Your task to perform on an android device: show emergency info Image 0: 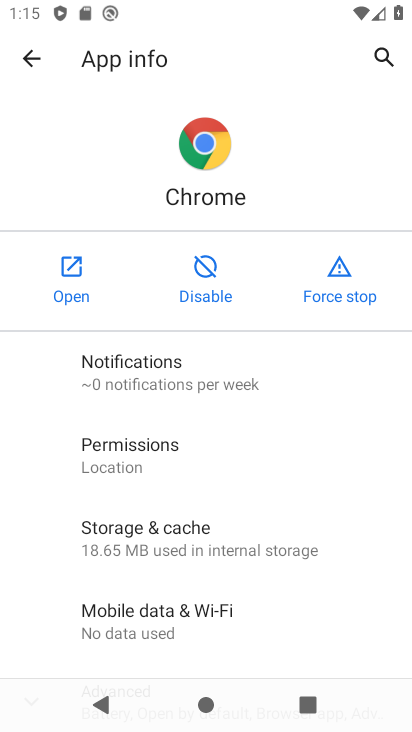
Step 0: press home button
Your task to perform on an android device: show emergency info Image 1: 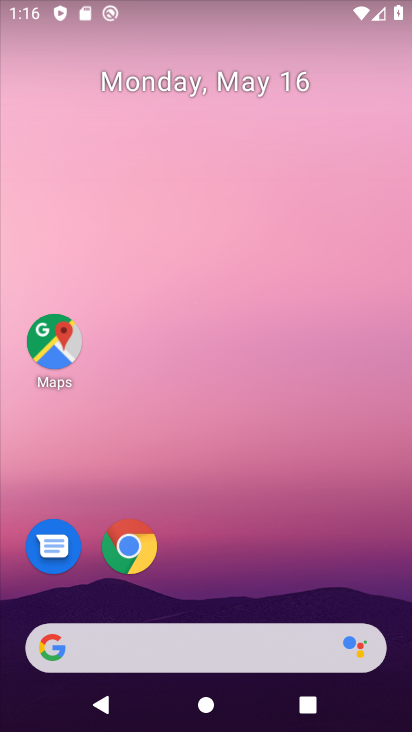
Step 1: drag from (140, 591) to (204, 202)
Your task to perform on an android device: show emergency info Image 2: 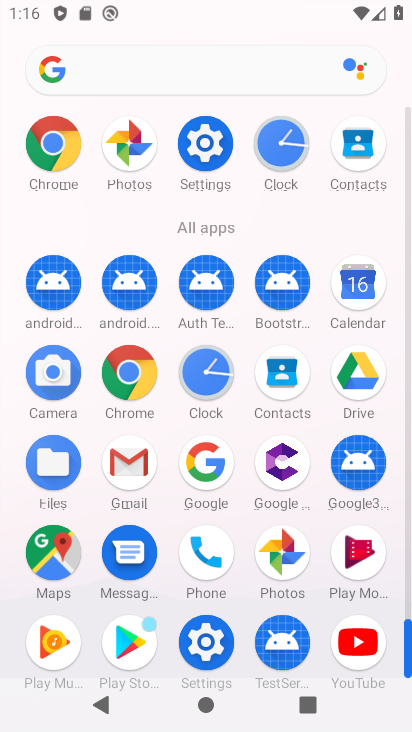
Step 2: click (206, 141)
Your task to perform on an android device: show emergency info Image 3: 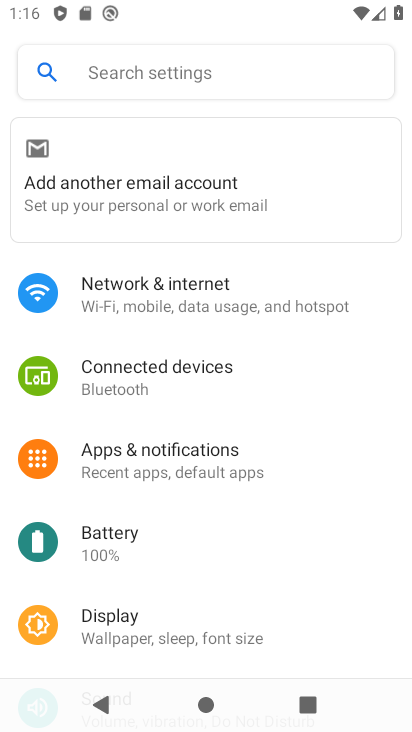
Step 3: drag from (150, 481) to (194, 183)
Your task to perform on an android device: show emergency info Image 4: 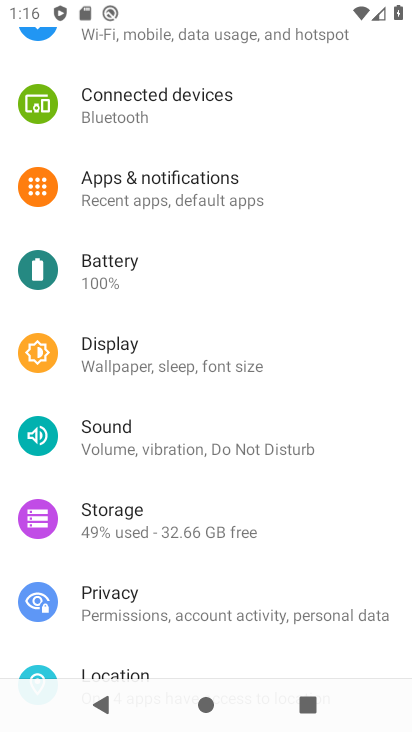
Step 4: drag from (161, 645) to (249, 169)
Your task to perform on an android device: show emergency info Image 5: 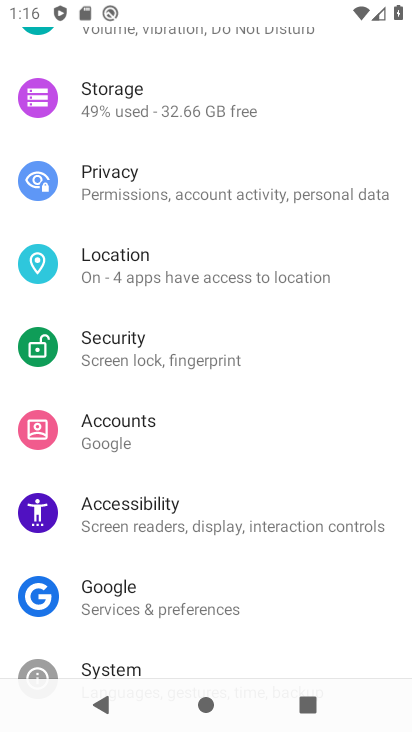
Step 5: drag from (238, 592) to (320, 167)
Your task to perform on an android device: show emergency info Image 6: 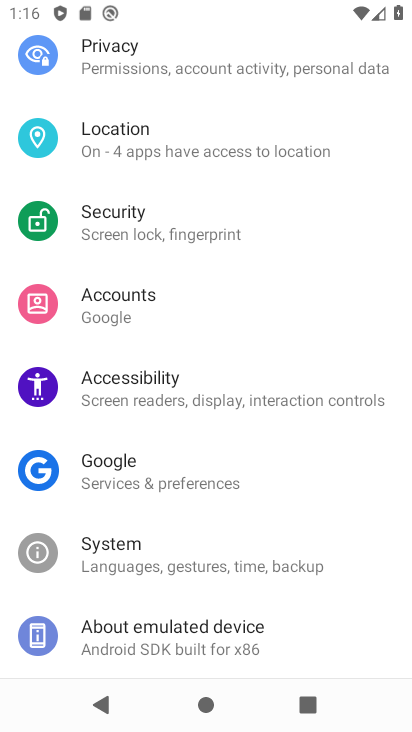
Step 6: click (142, 622)
Your task to perform on an android device: show emergency info Image 7: 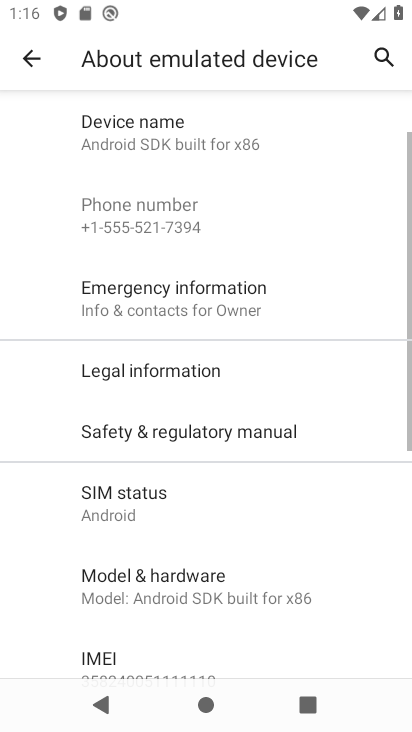
Step 7: click (242, 293)
Your task to perform on an android device: show emergency info Image 8: 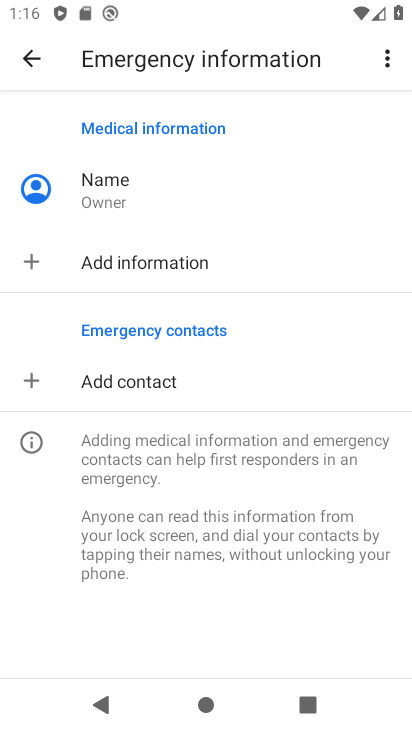
Step 8: task complete